Your task to perform on an android device: Find coffee shops on Maps Image 0: 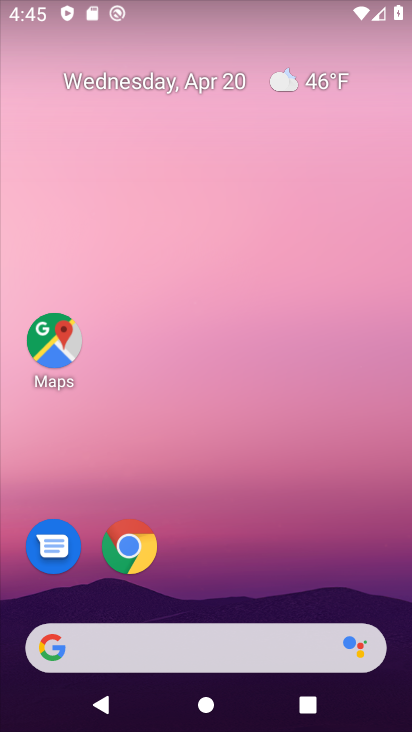
Step 0: drag from (236, 499) to (294, 77)
Your task to perform on an android device: Find coffee shops on Maps Image 1: 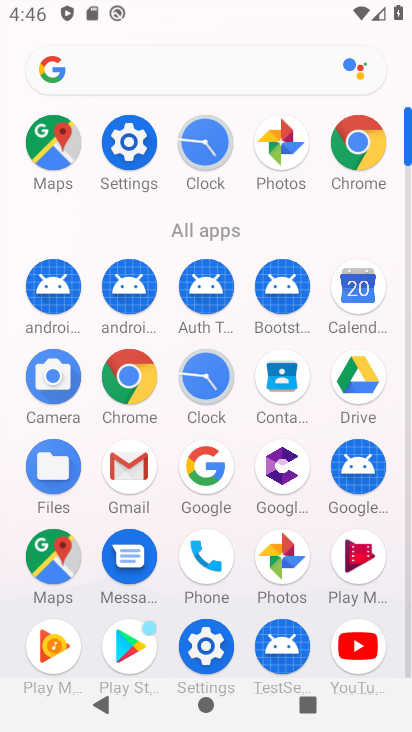
Step 1: click (49, 162)
Your task to perform on an android device: Find coffee shops on Maps Image 2: 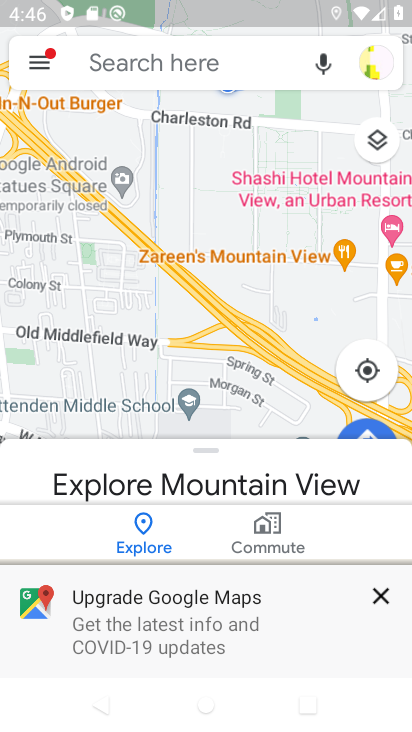
Step 2: click (218, 49)
Your task to perform on an android device: Find coffee shops on Maps Image 3: 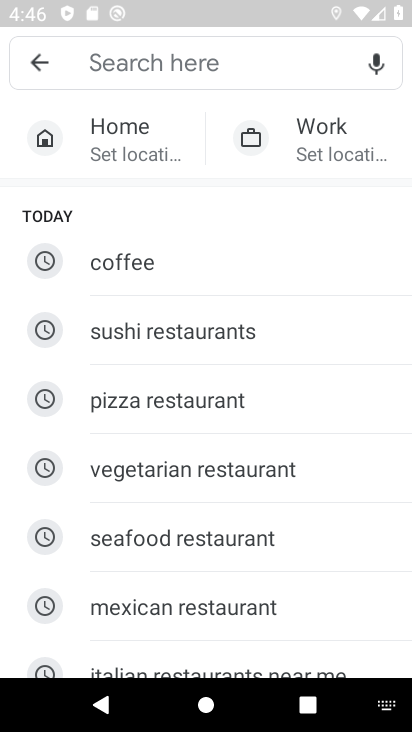
Step 3: click (154, 273)
Your task to perform on an android device: Find coffee shops on Maps Image 4: 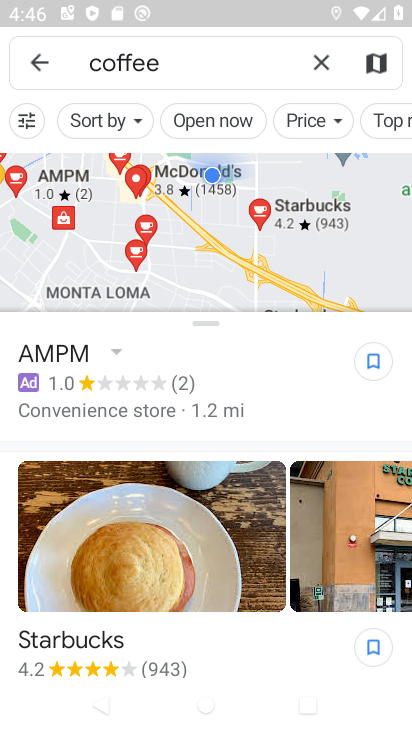
Step 4: task complete